Your task to perform on an android device: turn on wifi Image 0: 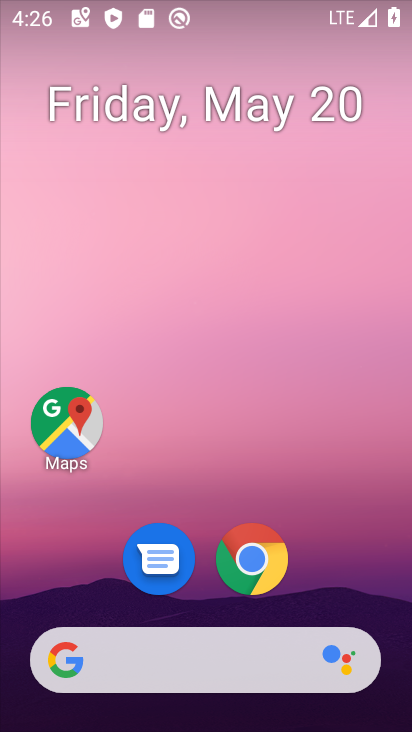
Step 0: drag from (168, 628) to (277, 63)
Your task to perform on an android device: turn on wifi Image 1: 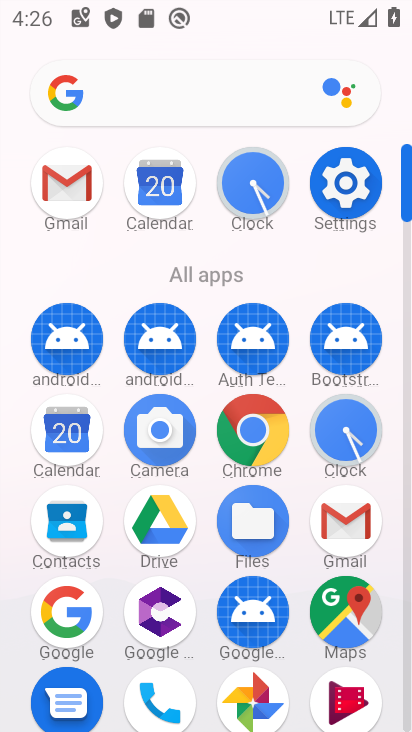
Step 1: click (357, 190)
Your task to perform on an android device: turn on wifi Image 2: 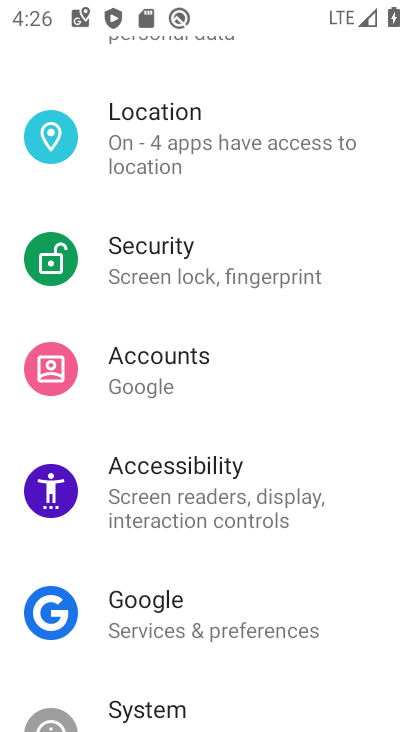
Step 2: drag from (214, 105) to (228, 560)
Your task to perform on an android device: turn on wifi Image 3: 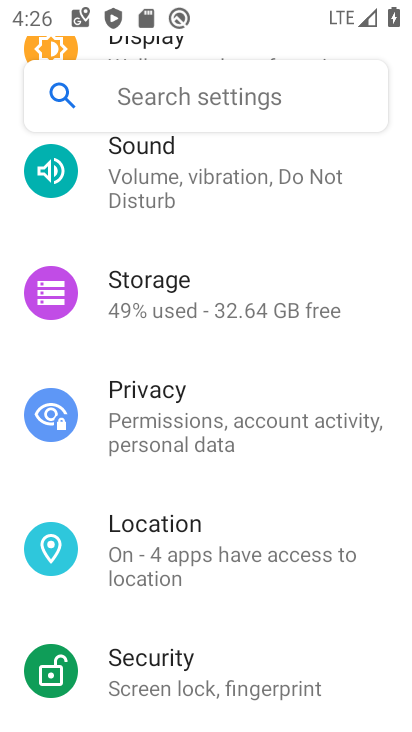
Step 3: drag from (226, 164) to (236, 614)
Your task to perform on an android device: turn on wifi Image 4: 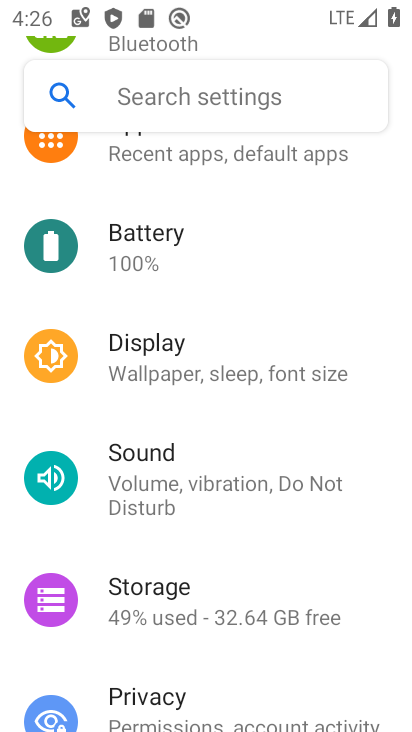
Step 4: drag from (235, 171) to (246, 603)
Your task to perform on an android device: turn on wifi Image 5: 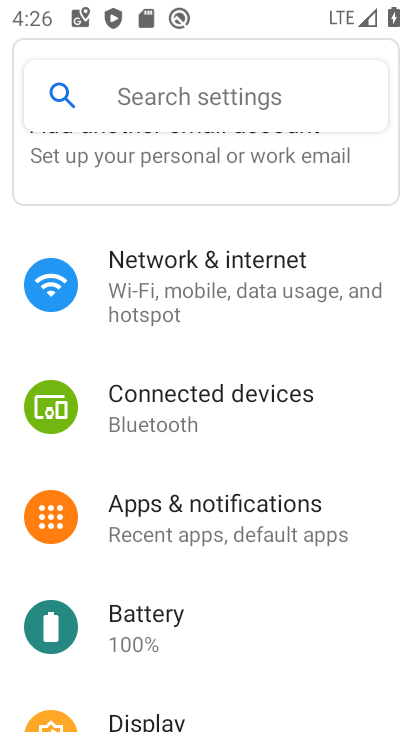
Step 5: click (272, 281)
Your task to perform on an android device: turn on wifi Image 6: 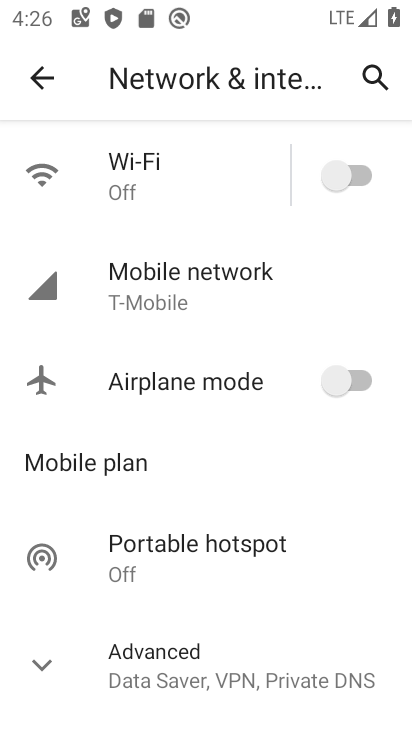
Step 6: click (359, 183)
Your task to perform on an android device: turn on wifi Image 7: 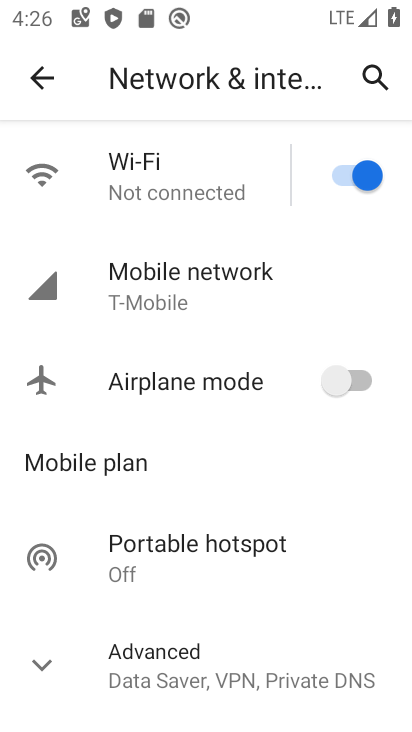
Step 7: task complete